Your task to perform on an android device: set default search engine in the chrome app Image 0: 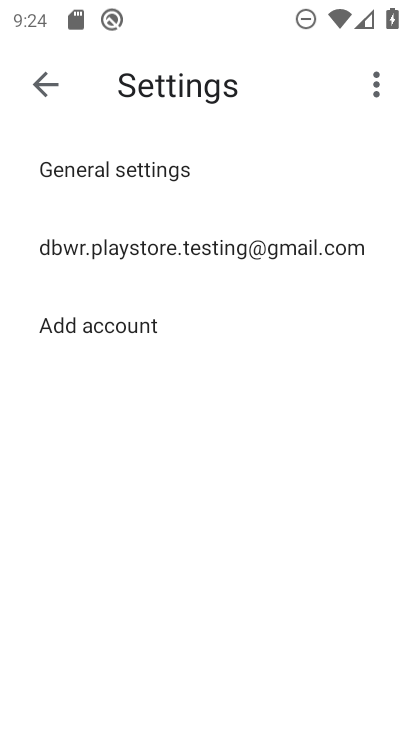
Step 0: press home button
Your task to perform on an android device: set default search engine in the chrome app Image 1: 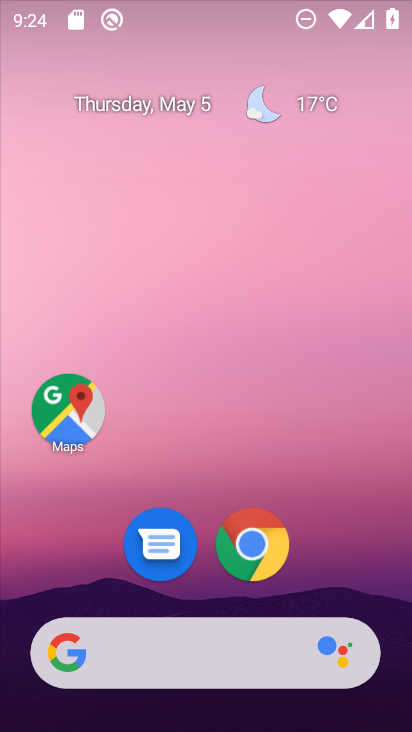
Step 1: drag from (391, 623) to (272, 32)
Your task to perform on an android device: set default search engine in the chrome app Image 2: 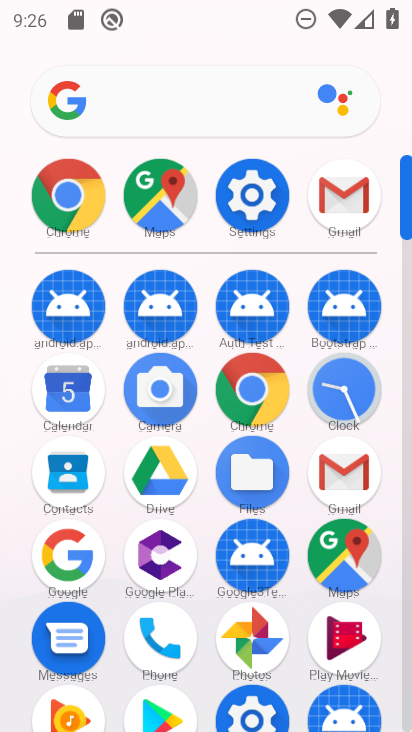
Step 2: click (254, 375)
Your task to perform on an android device: set default search engine in the chrome app Image 3: 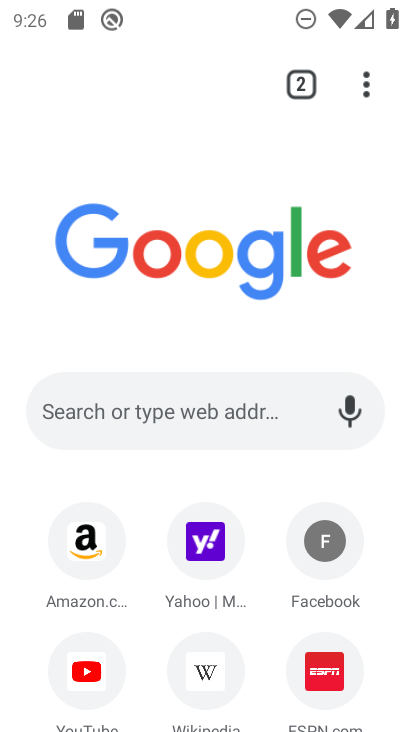
Step 3: click (365, 81)
Your task to perform on an android device: set default search engine in the chrome app Image 4: 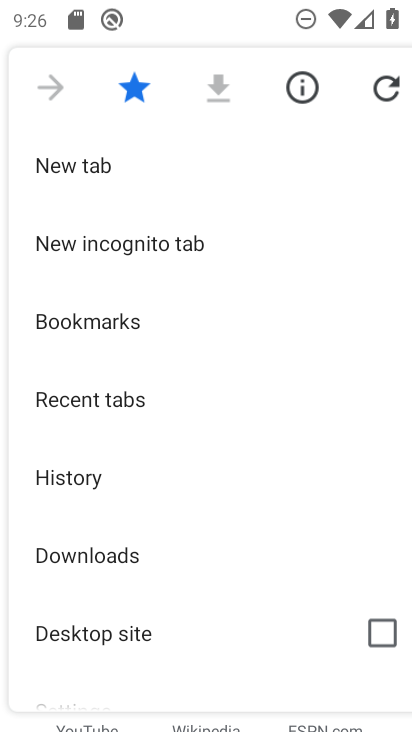
Step 4: drag from (123, 666) to (237, 233)
Your task to perform on an android device: set default search engine in the chrome app Image 5: 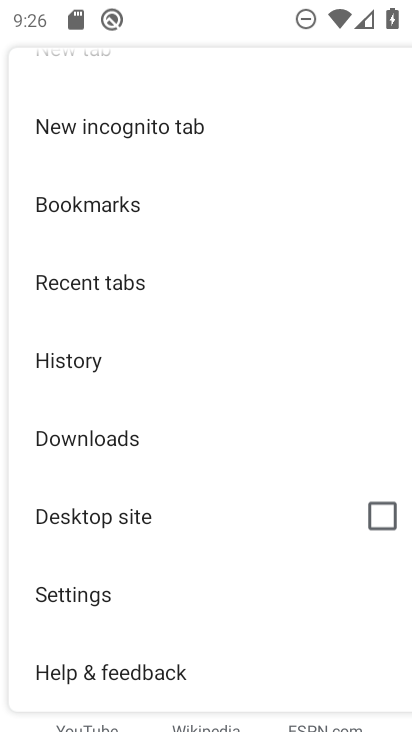
Step 5: click (172, 600)
Your task to perform on an android device: set default search engine in the chrome app Image 6: 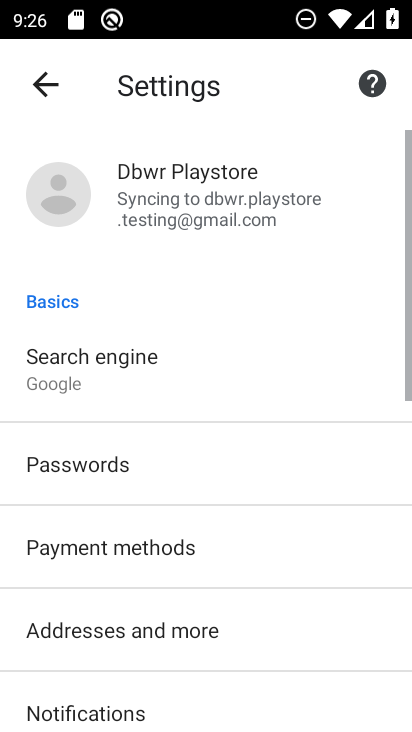
Step 6: click (128, 379)
Your task to perform on an android device: set default search engine in the chrome app Image 7: 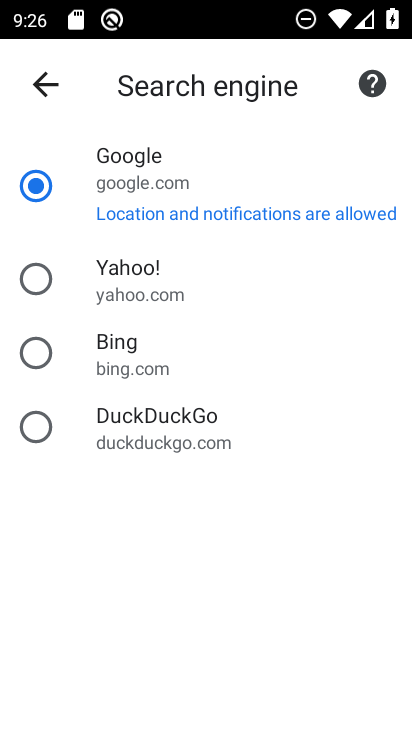
Step 7: click (110, 302)
Your task to perform on an android device: set default search engine in the chrome app Image 8: 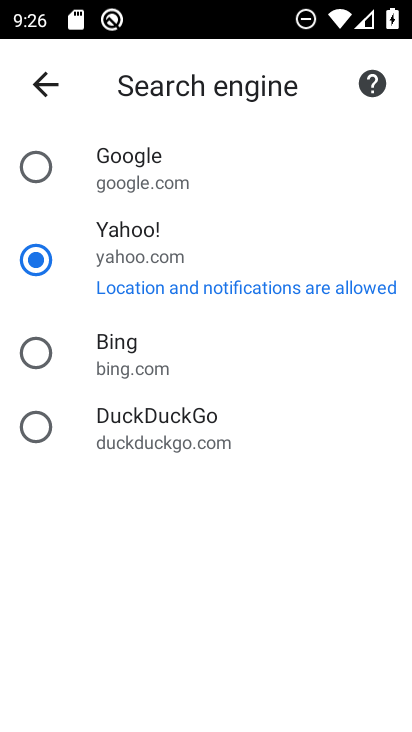
Step 8: task complete